Your task to perform on an android device: uninstall "eBay: The shopping marketplace" Image 0: 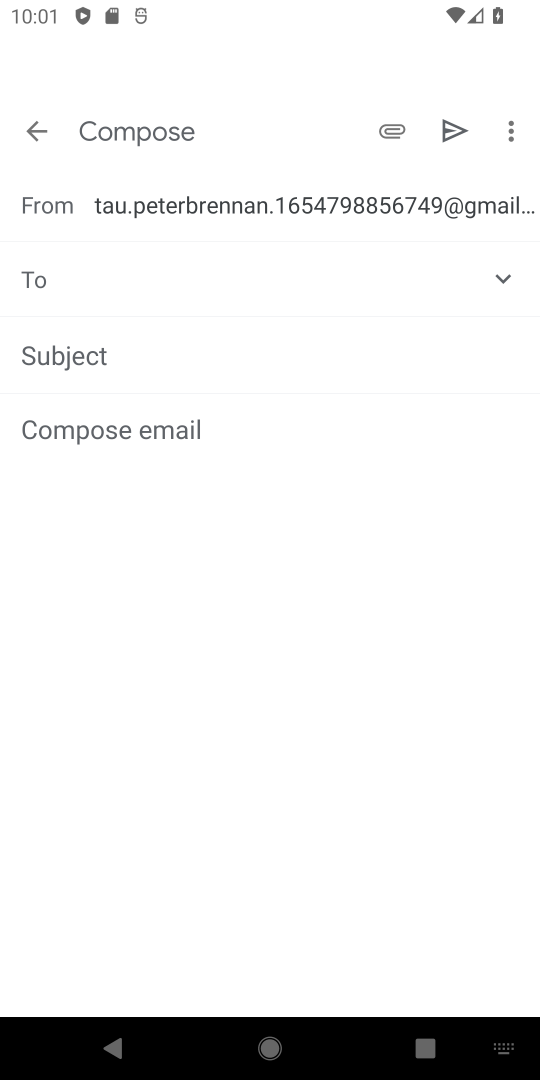
Step 0: press home button
Your task to perform on an android device: uninstall "eBay: The shopping marketplace" Image 1: 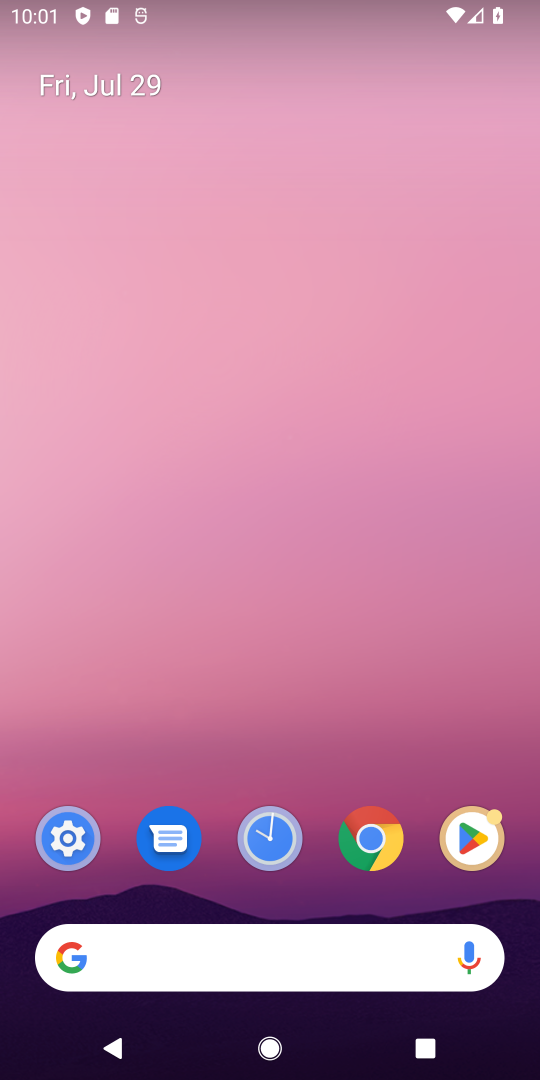
Step 1: click (491, 836)
Your task to perform on an android device: uninstall "eBay: The shopping marketplace" Image 2: 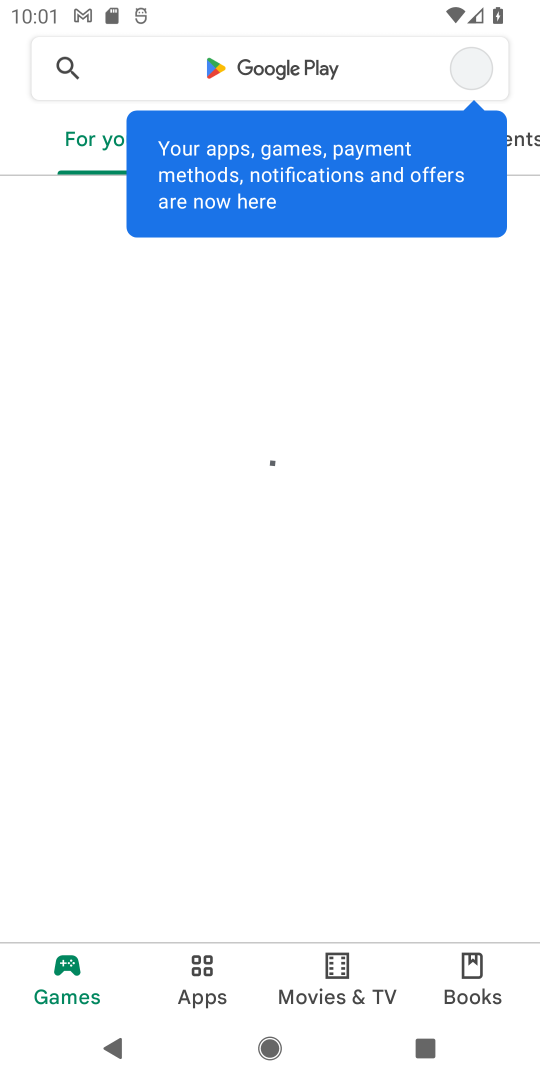
Step 2: click (258, 68)
Your task to perform on an android device: uninstall "eBay: The shopping marketplace" Image 3: 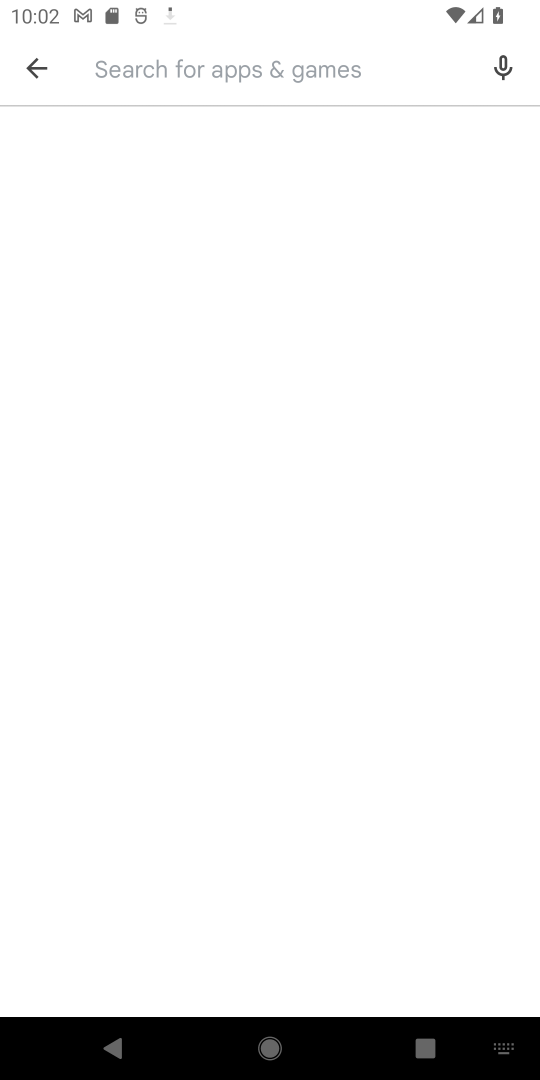
Step 3: type "eBay"
Your task to perform on an android device: uninstall "eBay: The shopping marketplace" Image 4: 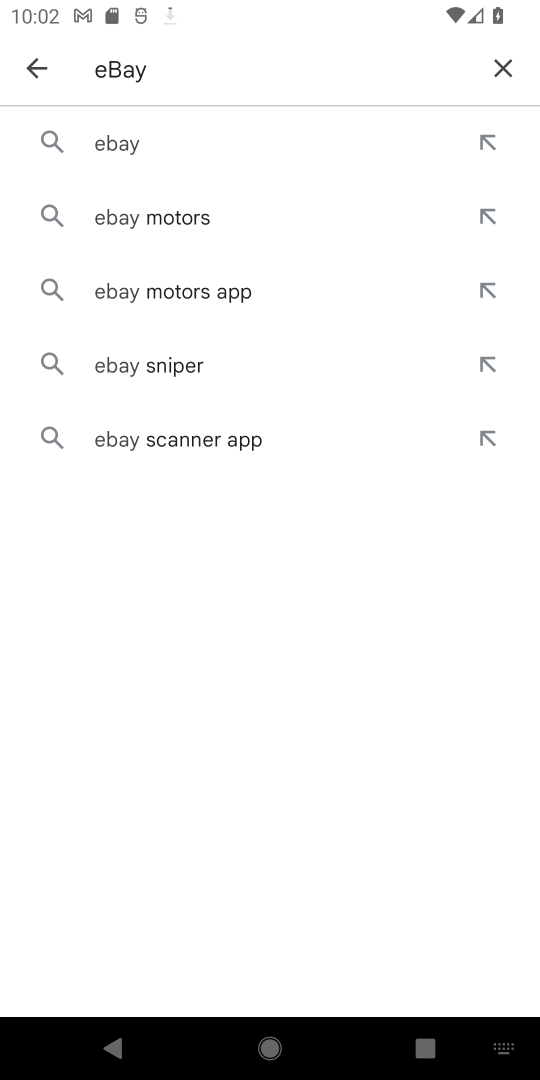
Step 4: click (146, 156)
Your task to perform on an android device: uninstall "eBay: The shopping marketplace" Image 5: 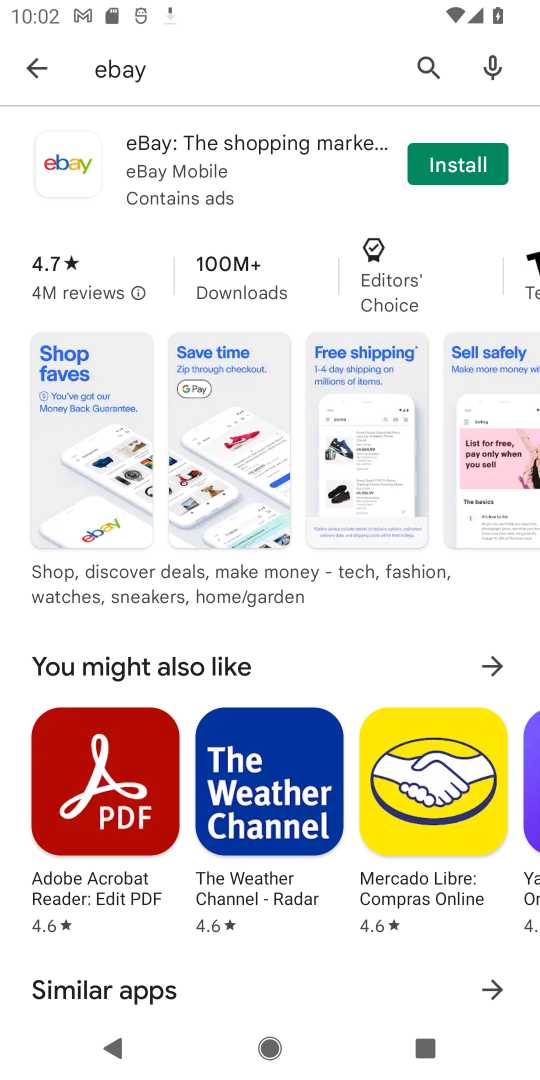
Step 5: task complete